Your task to perform on an android device: Play the new Ed Sheeran video on YouTube Image 0: 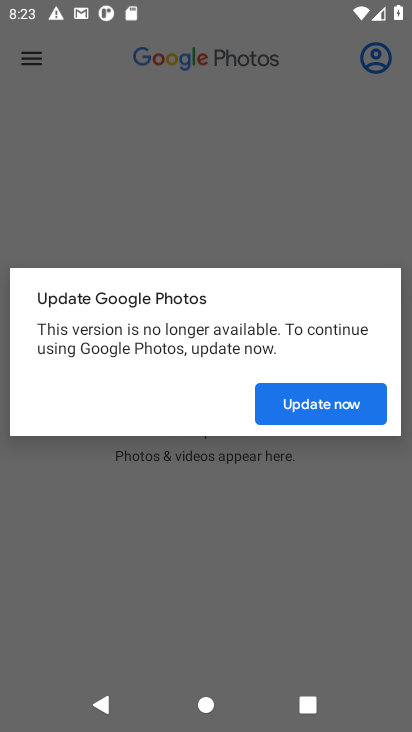
Step 0: press home button
Your task to perform on an android device: Play the new Ed Sheeran video on YouTube Image 1: 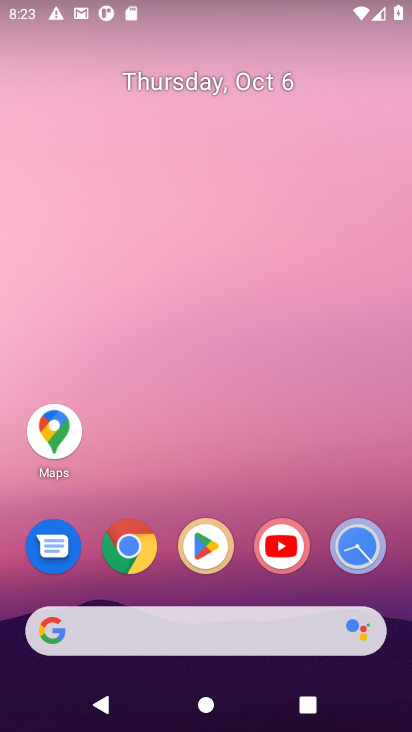
Step 1: click (284, 545)
Your task to perform on an android device: Play the new Ed Sheeran video on YouTube Image 2: 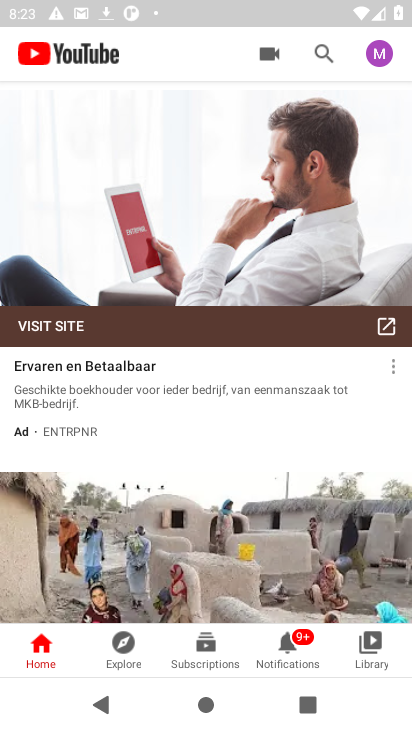
Step 2: click (319, 59)
Your task to perform on an android device: Play the new Ed Sheeran video on YouTube Image 3: 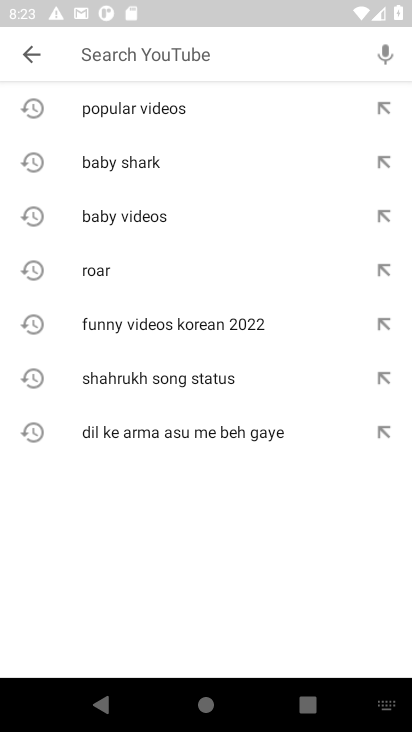
Step 3: type "new Ed Sheeran video"
Your task to perform on an android device: Play the new Ed Sheeran video on YouTube Image 4: 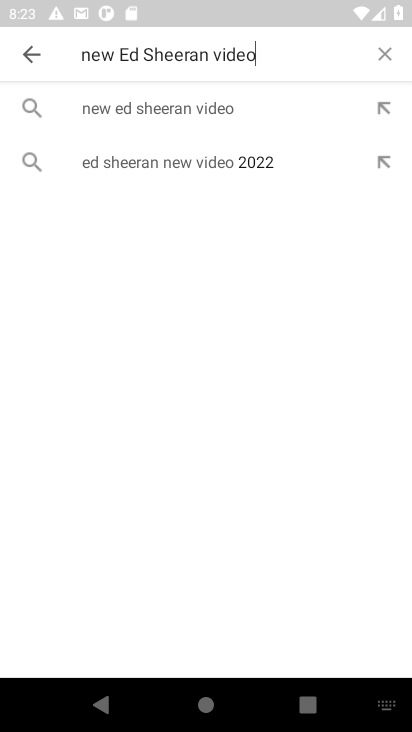
Step 4: click (108, 113)
Your task to perform on an android device: Play the new Ed Sheeran video on YouTube Image 5: 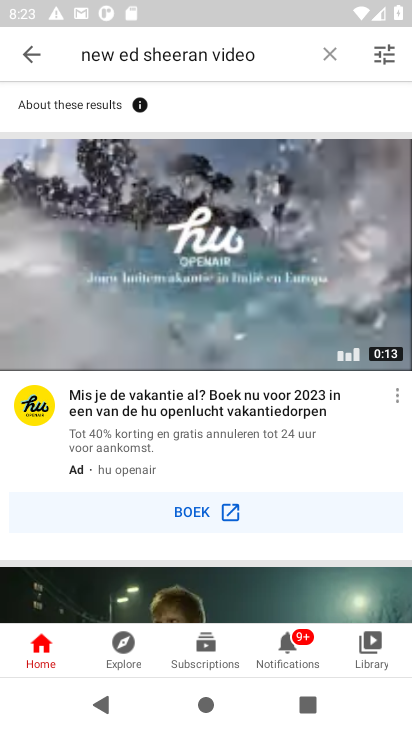
Step 5: drag from (134, 549) to (169, 189)
Your task to perform on an android device: Play the new Ed Sheeran video on YouTube Image 6: 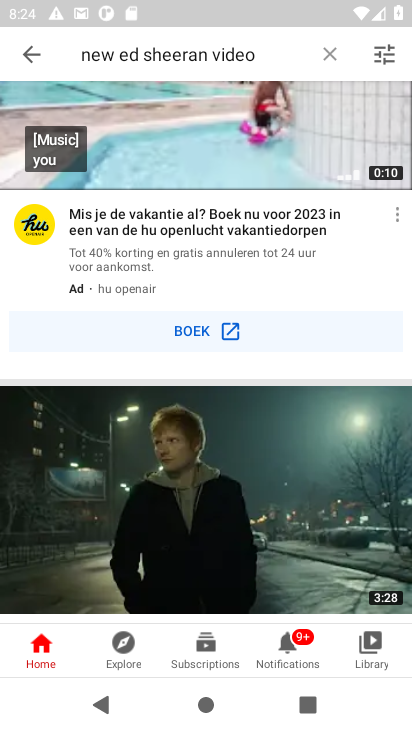
Step 6: drag from (240, 382) to (255, 135)
Your task to perform on an android device: Play the new Ed Sheeran video on YouTube Image 7: 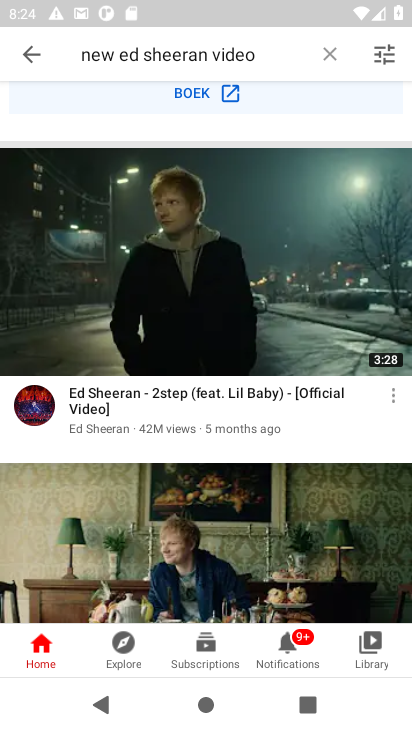
Step 7: click (92, 432)
Your task to perform on an android device: Play the new Ed Sheeran video on YouTube Image 8: 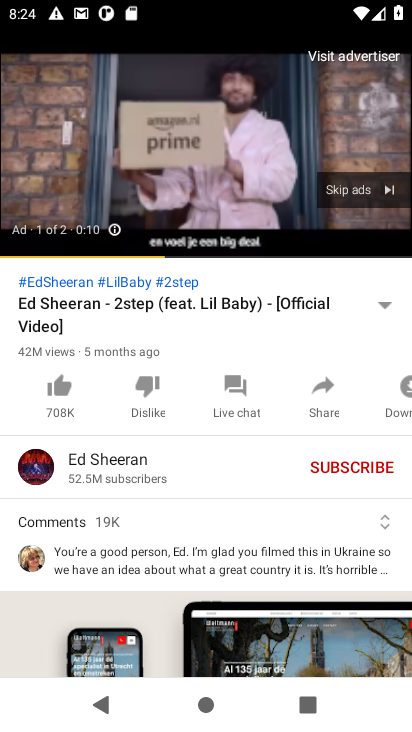
Step 8: click (350, 189)
Your task to perform on an android device: Play the new Ed Sheeran video on YouTube Image 9: 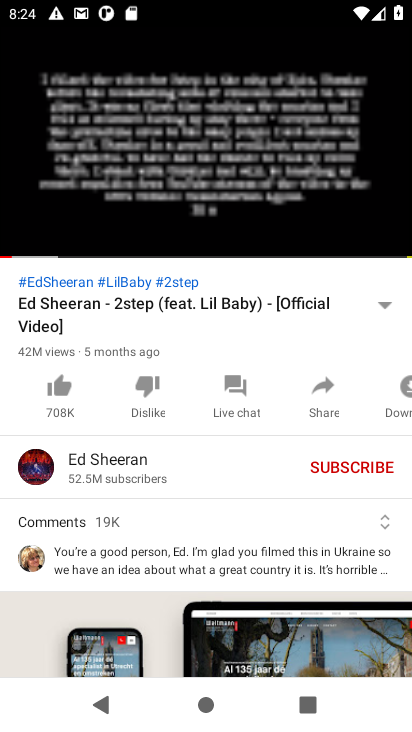
Step 9: click (212, 161)
Your task to perform on an android device: Play the new Ed Sheeran video on YouTube Image 10: 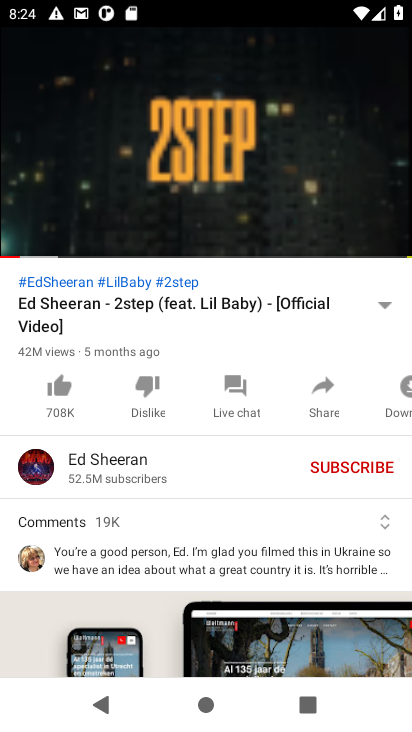
Step 10: click (202, 139)
Your task to perform on an android device: Play the new Ed Sheeran video on YouTube Image 11: 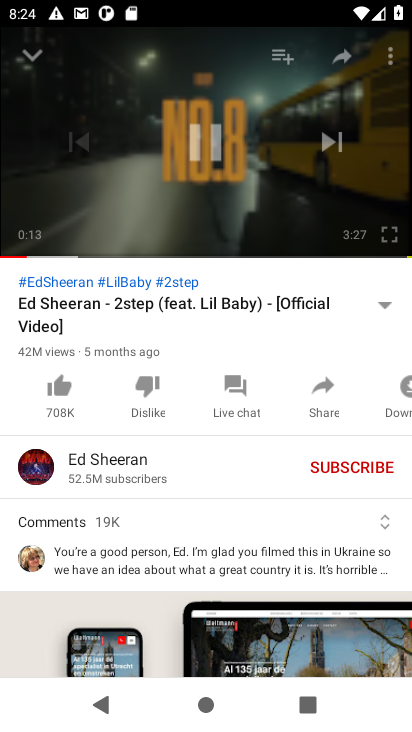
Step 11: click (202, 139)
Your task to perform on an android device: Play the new Ed Sheeran video on YouTube Image 12: 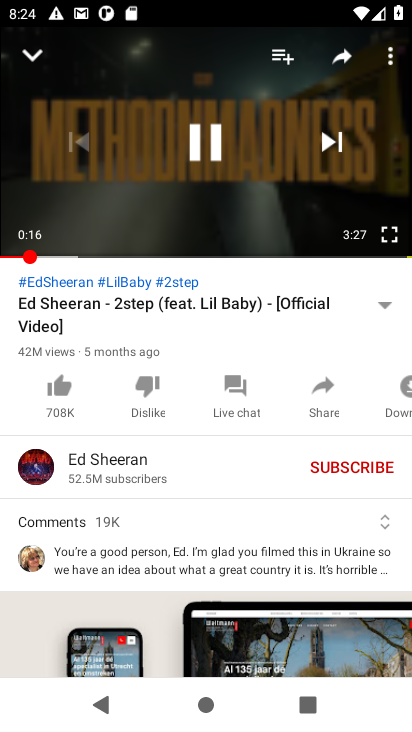
Step 12: click (202, 139)
Your task to perform on an android device: Play the new Ed Sheeran video on YouTube Image 13: 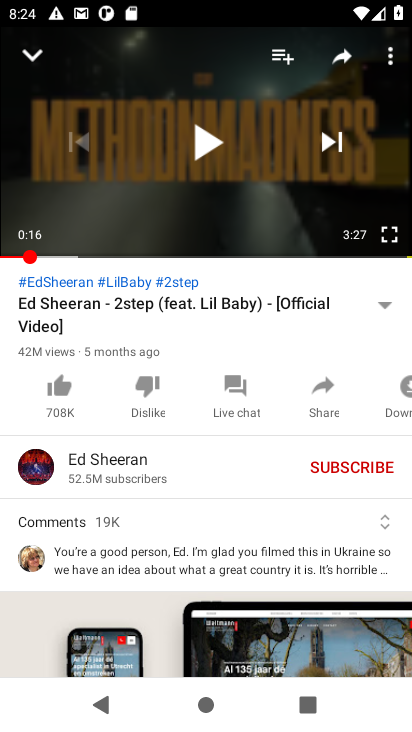
Step 13: task complete